Your task to perform on an android device: Search for the best rated tool bag on Lowe's. Image 0: 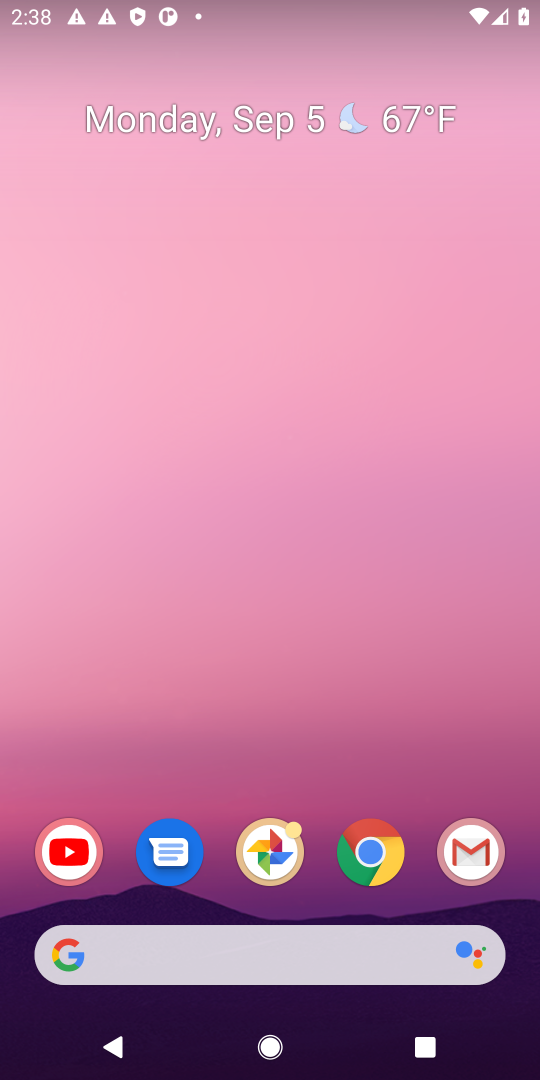
Step 0: click (374, 853)
Your task to perform on an android device: Search for the best rated tool bag on Lowe's. Image 1: 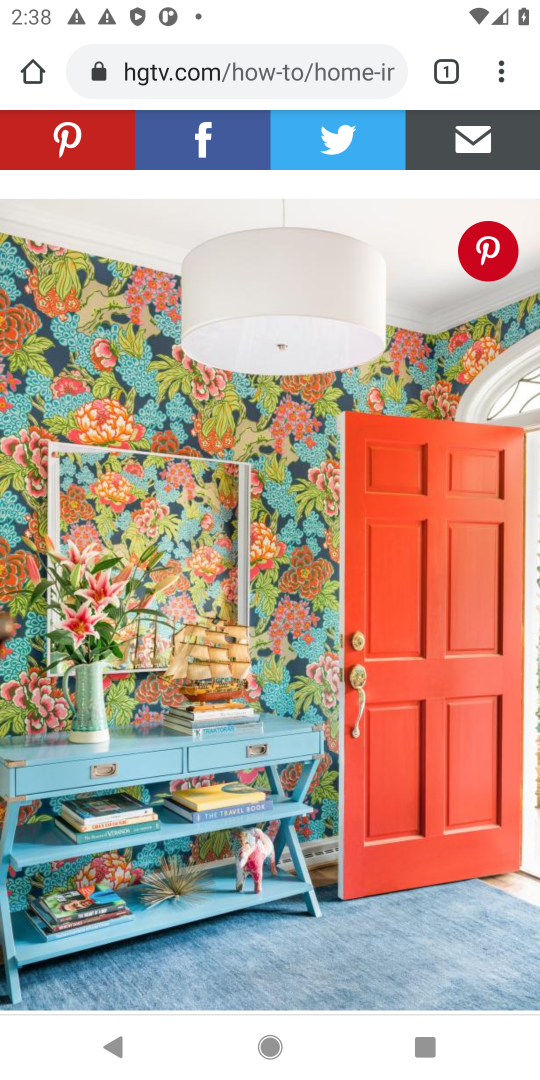
Step 1: click (260, 45)
Your task to perform on an android device: Search for the best rated tool bag on Lowe's. Image 2: 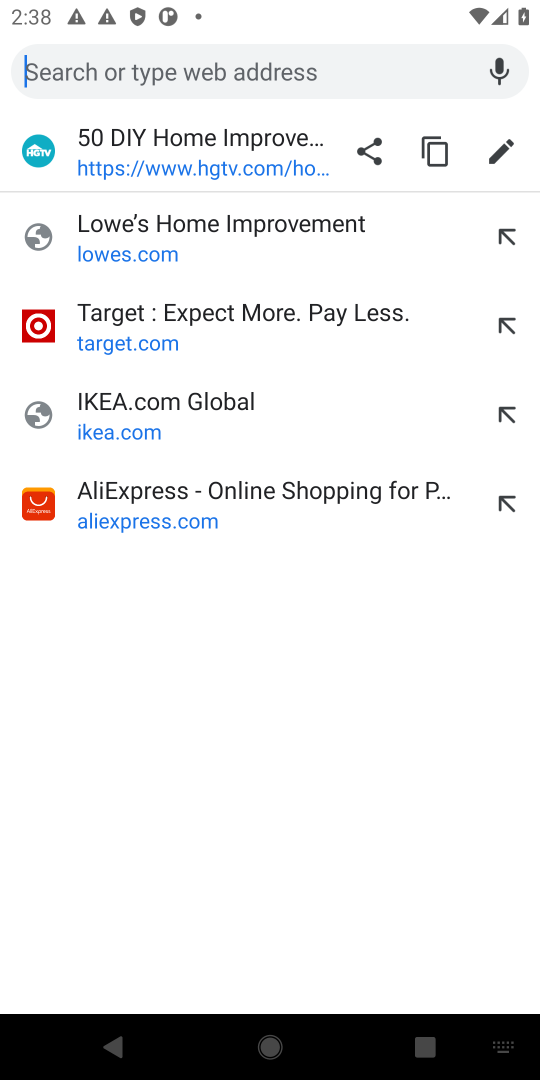
Step 2: type "Lowe's"
Your task to perform on an android device: Search for the best rated tool bag on Lowe's. Image 3: 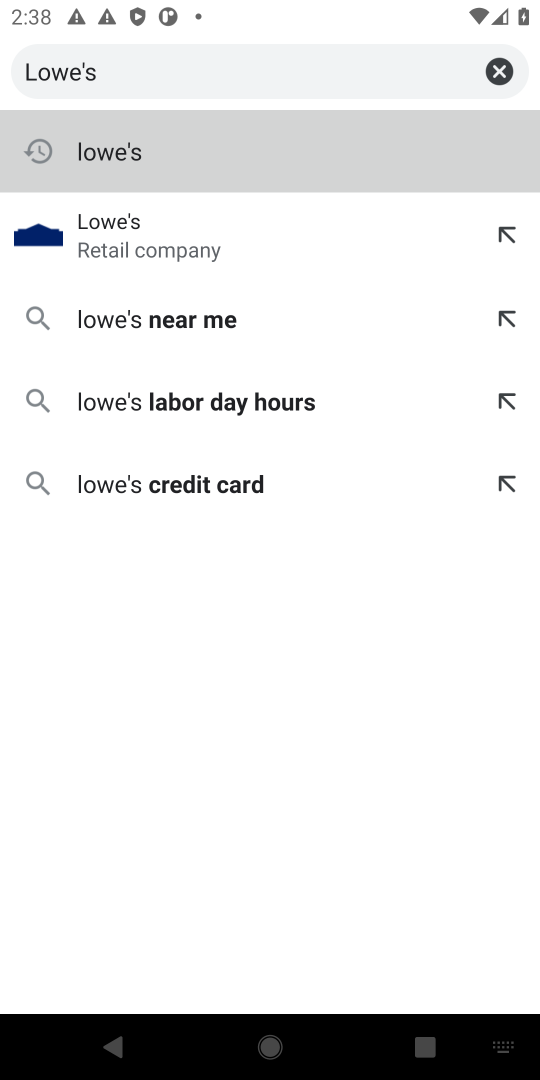
Step 3: click (113, 237)
Your task to perform on an android device: Search for the best rated tool bag on Lowe's. Image 4: 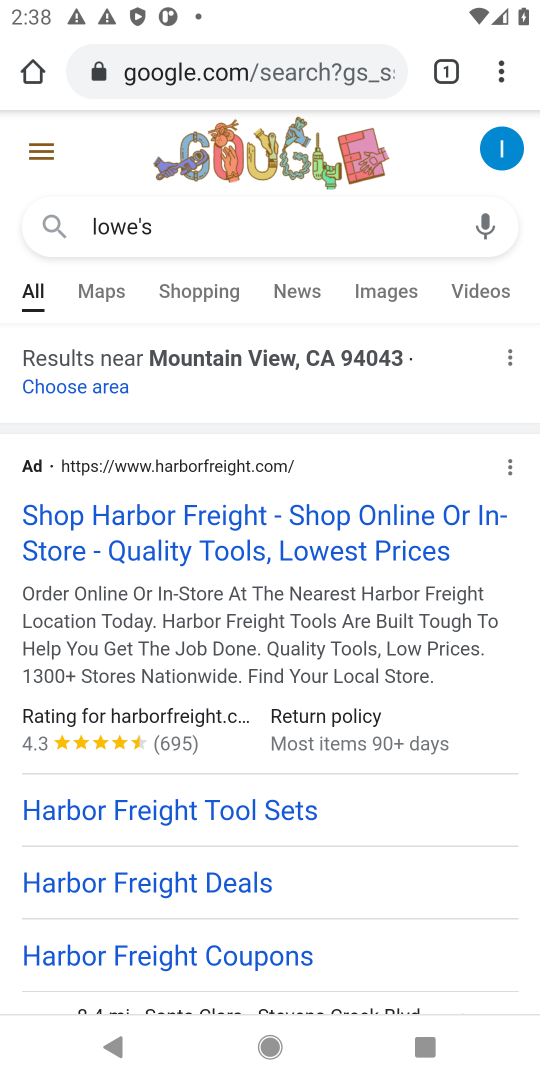
Step 4: drag from (344, 873) to (293, 140)
Your task to perform on an android device: Search for the best rated tool bag on Lowe's. Image 5: 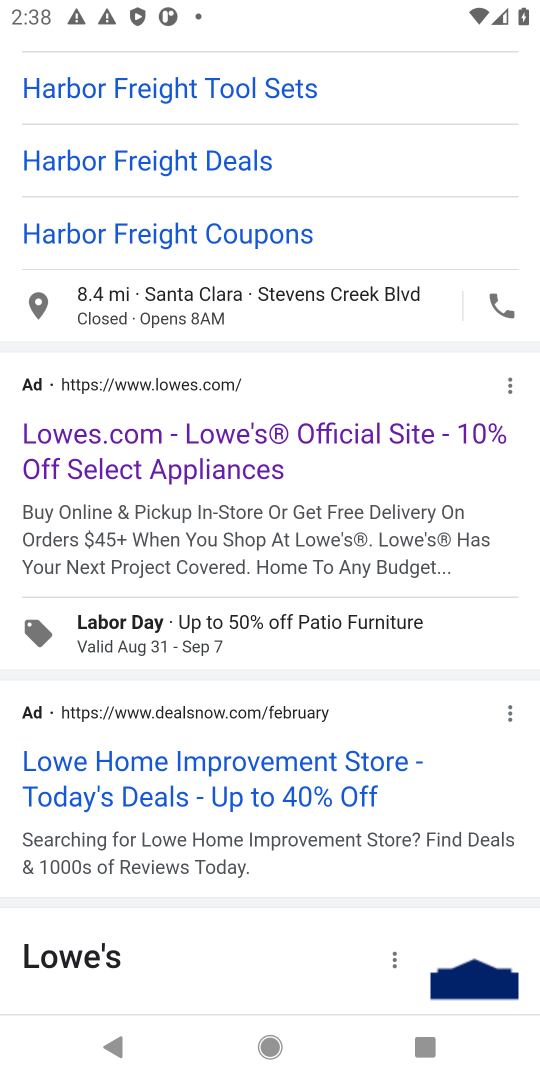
Step 5: drag from (278, 921) to (291, 260)
Your task to perform on an android device: Search for the best rated tool bag on Lowe's. Image 6: 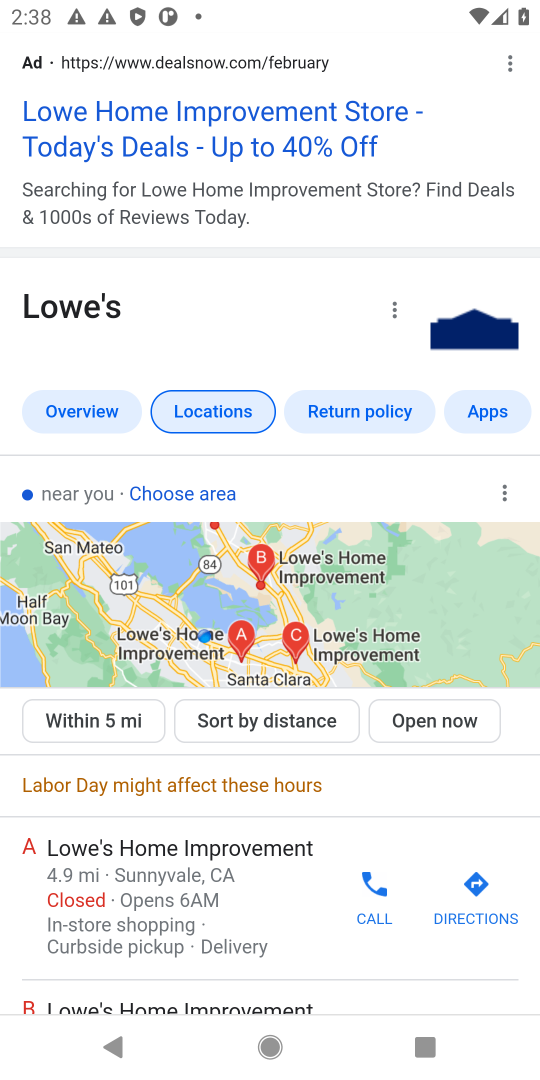
Step 6: drag from (303, 983) to (305, 329)
Your task to perform on an android device: Search for the best rated tool bag on Lowe's. Image 7: 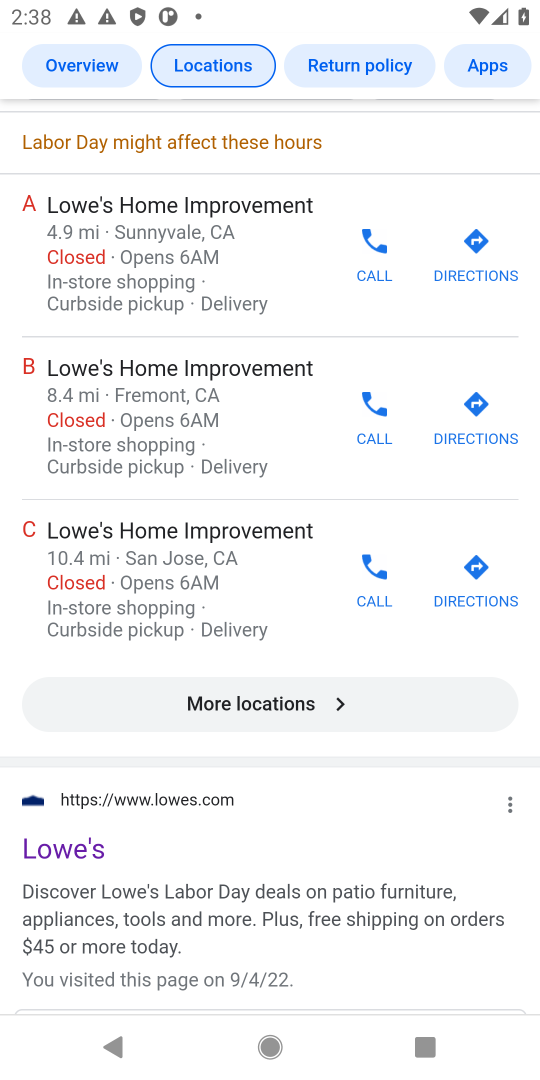
Step 7: click (84, 843)
Your task to perform on an android device: Search for the best rated tool bag on Lowe's. Image 8: 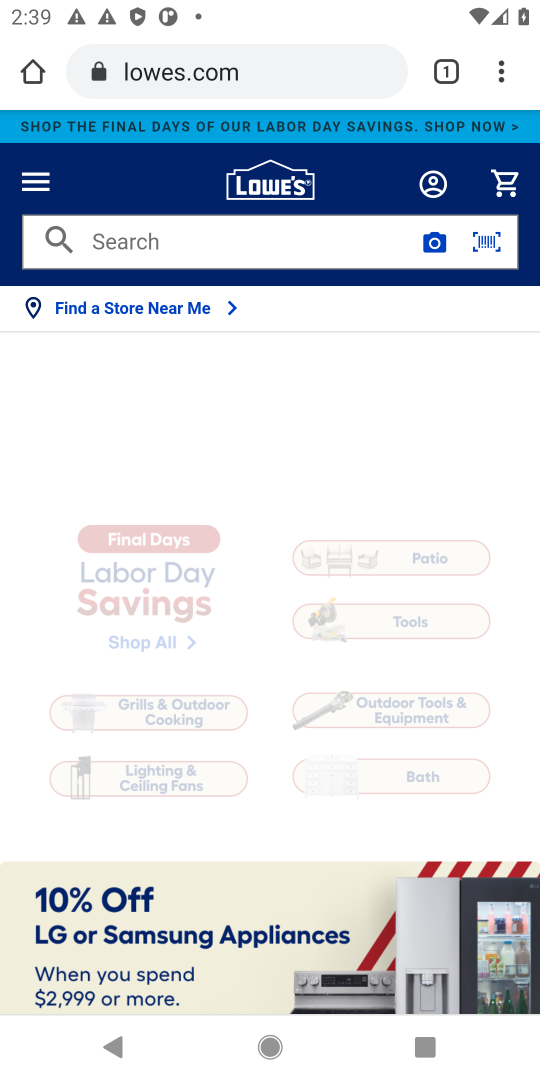
Step 8: click (117, 231)
Your task to perform on an android device: Search for the best rated tool bag on Lowe's. Image 9: 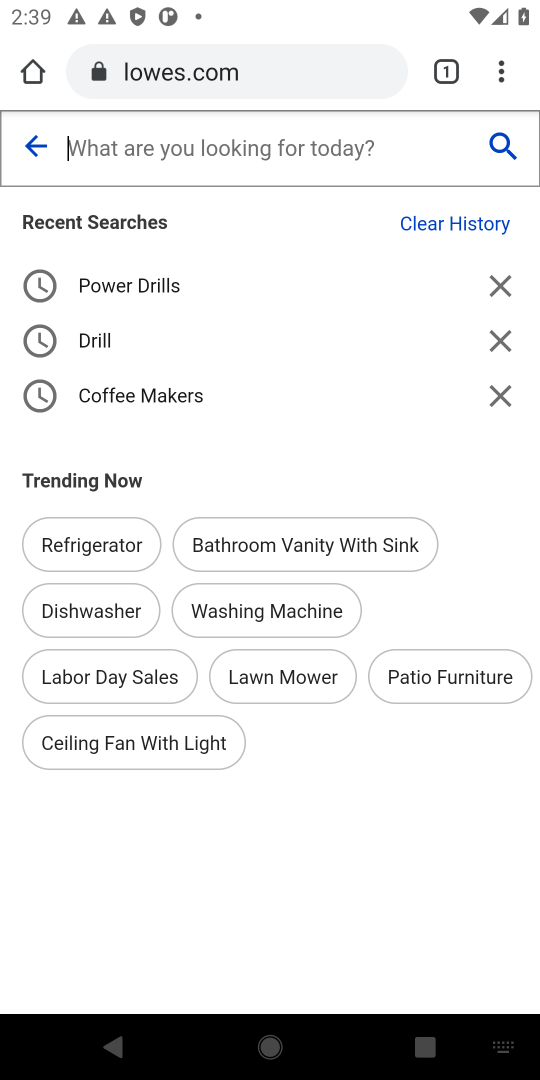
Step 9: type " tool bag"
Your task to perform on an android device: Search for the best rated tool bag on Lowe's. Image 10: 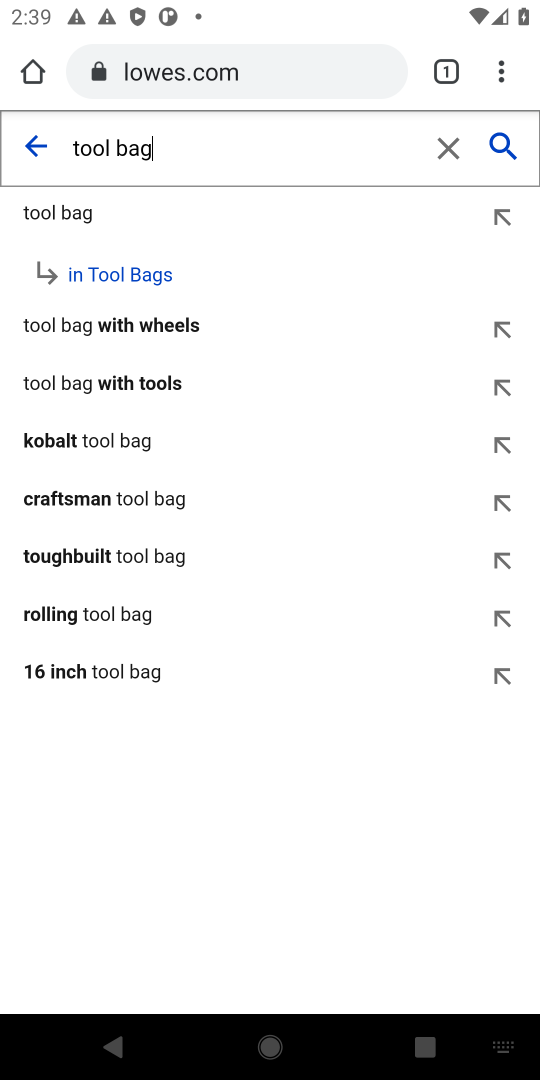
Step 10: click (55, 207)
Your task to perform on an android device: Search for the best rated tool bag on Lowe's. Image 11: 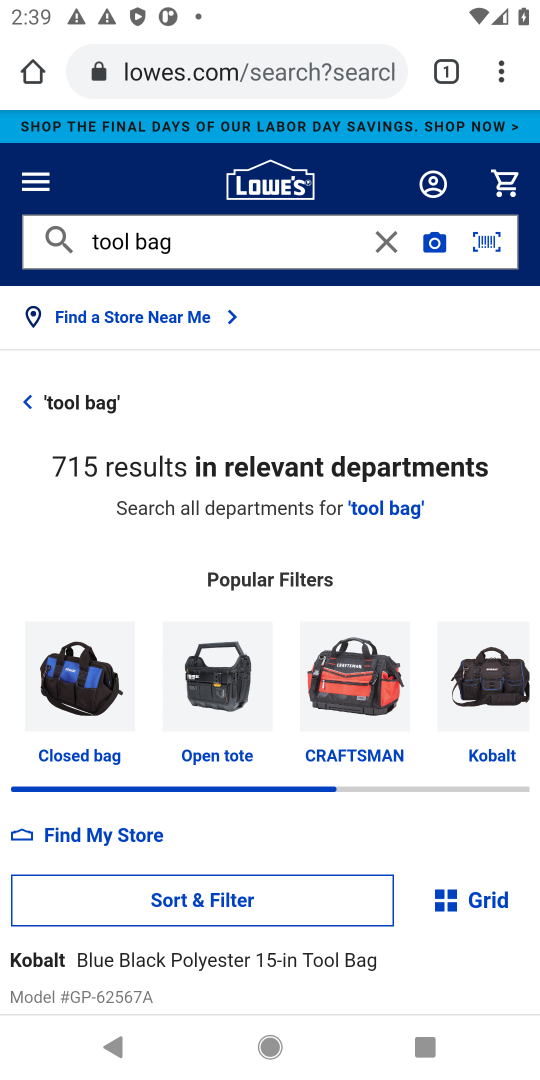
Step 11: click (183, 902)
Your task to perform on an android device: Search for the best rated tool bag on Lowe's. Image 12: 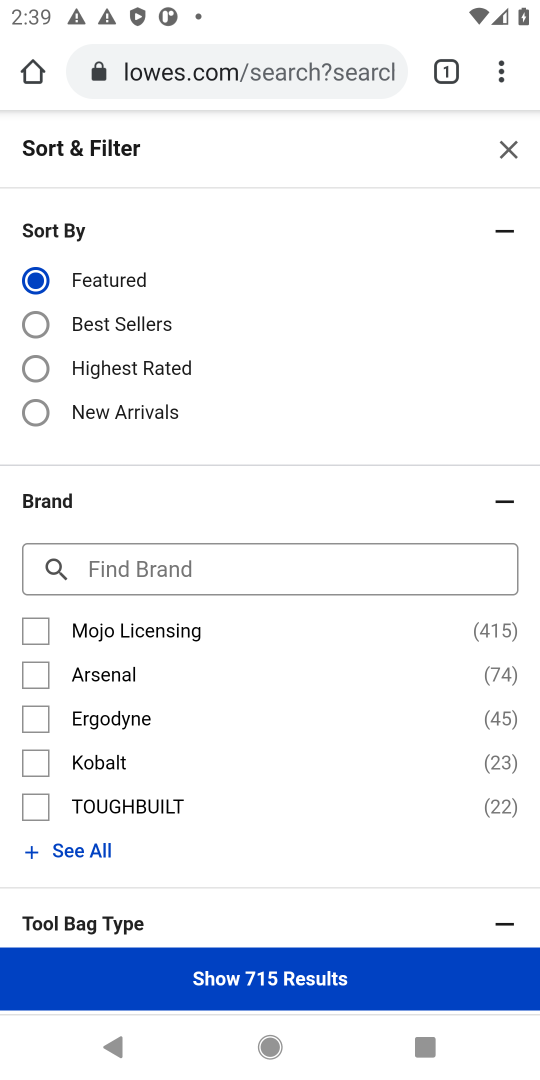
Step 12: click (38, 368)
Your task to perform on an android device: Search for the best rated tool bag on Lowe's. Image 13: 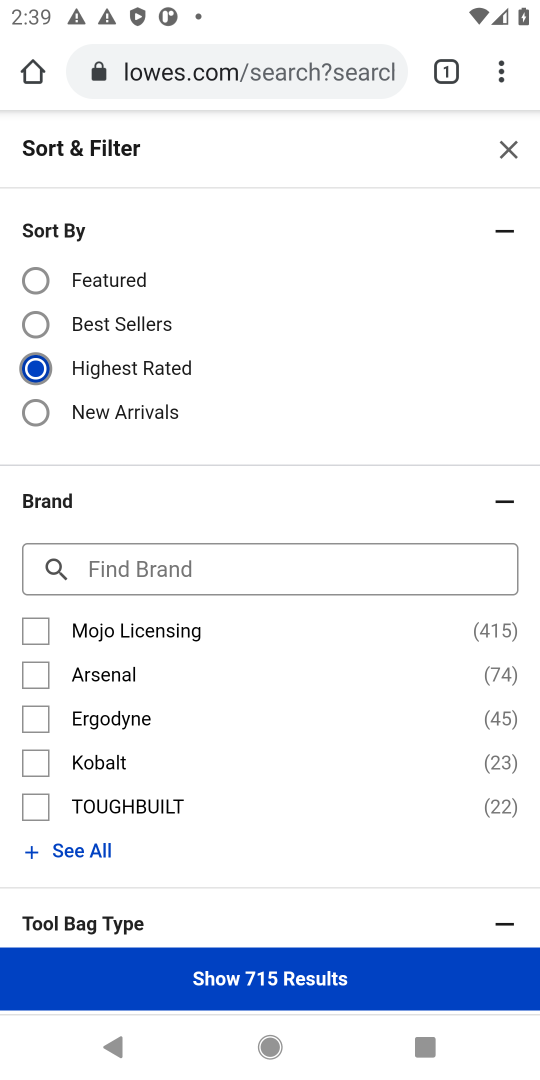
Step 13: click (267, 979)
Your task to perform on an android device: Search for the best rated tool bag on Lowe's. Image 14: 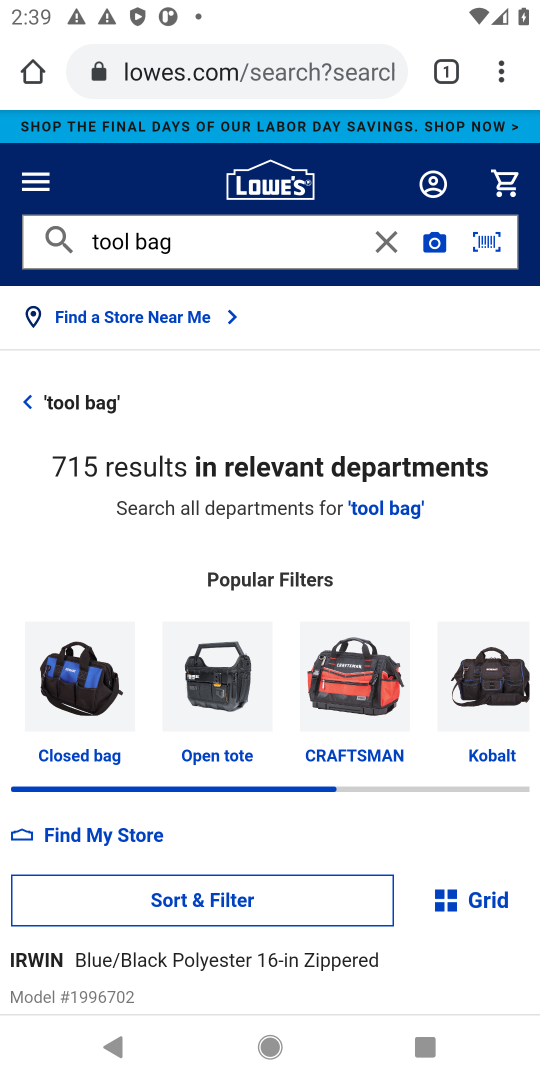
Step 14: task complete